Your task to perform on an android device: Show me productivity apps on the Play Store Image 0: 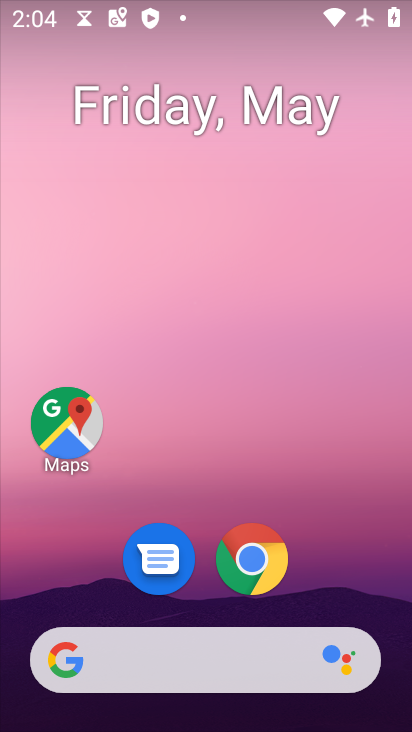
Step 0: drag from (340, 612) to (319, 184)
Your task to perform on an android device: Show me productivity apps on the Play Store Image 1: 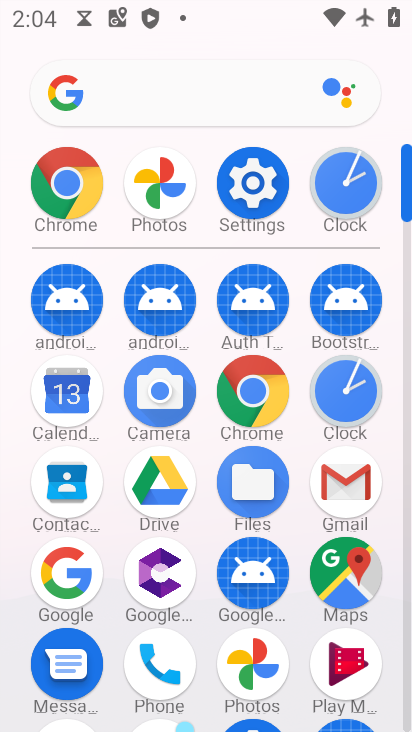
Step 1: drag from (239, 617) to (282, 223)
Your task to perform on an android device: Show me productivity apps on the Play Store Image 2: 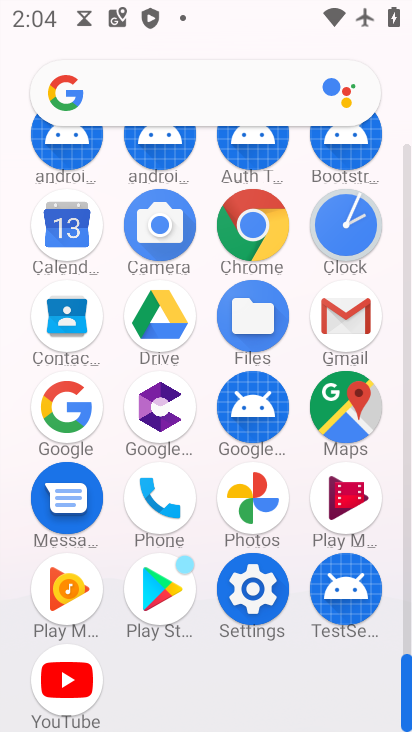
Step 2: click (165, 589)
Your task to perform on an android device: Show me productivity apps on the Play Store Image 3: 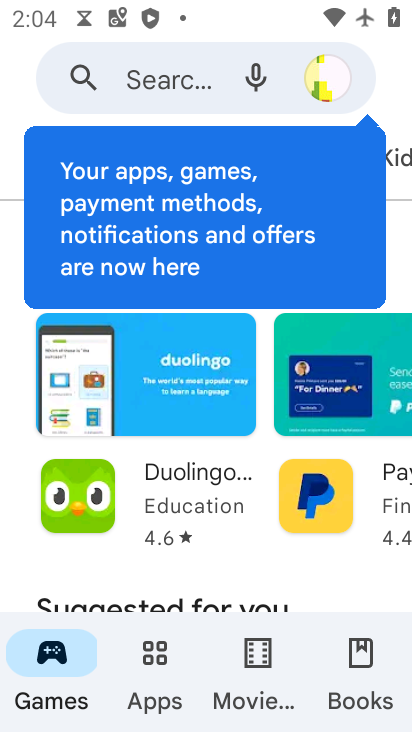
Step 3: click (159, 655)
Your task to perform on an android device: Show me productivity apps on the Play Store Image 4: 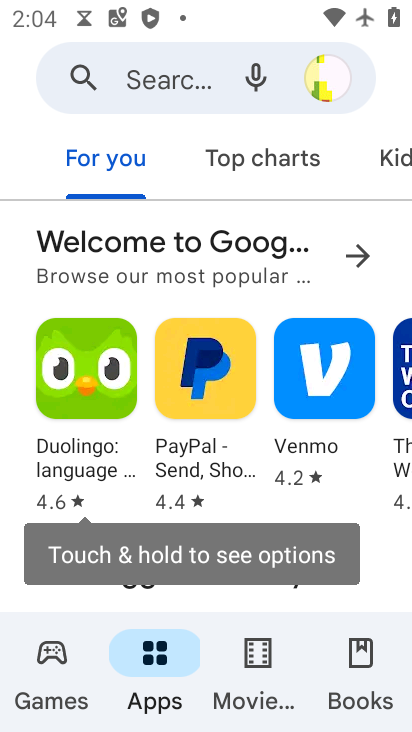
Step 4: drag from (293, 148) to (52, 156)
Your task to perform on an android device: Show me productivity apps on the Play Store Image 5: 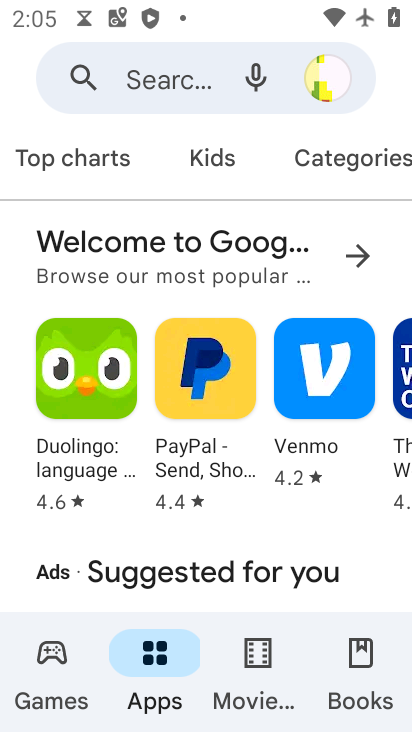
Step 5: click (352, 167)
Your task to perform on an android device: Show me productivity apps on the Play Store Image 6: 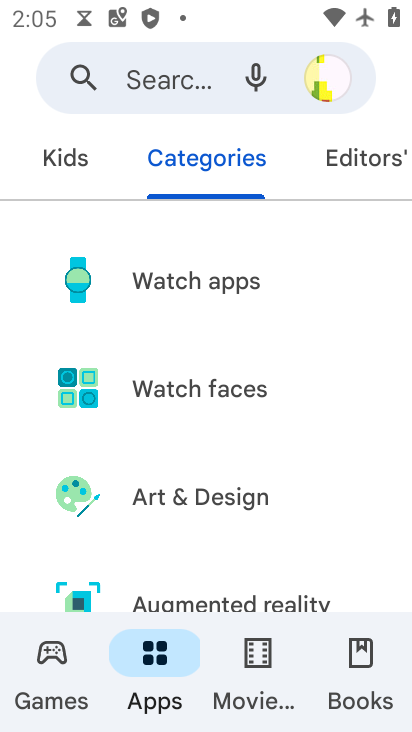
Step 6: drag from (258, 536) to (257, 232)
Your task to perform on an android device: Show me productivity apps on the Play Store Image 7: 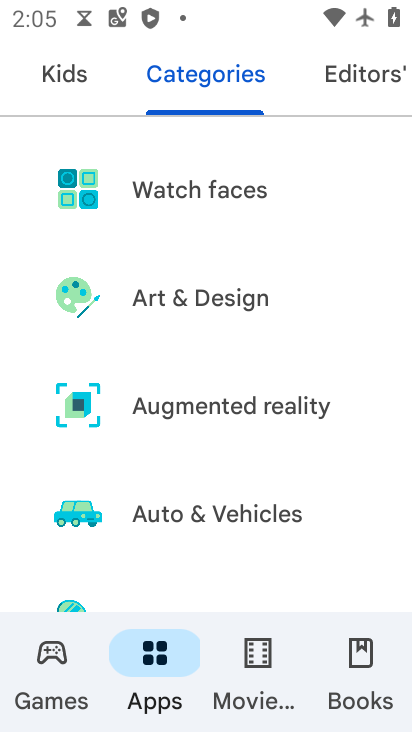
Step 7: drag from (285, 537) to (285, 232)
Your task to perform on an android device: Show me productivity apps on the Play Store Image 8: 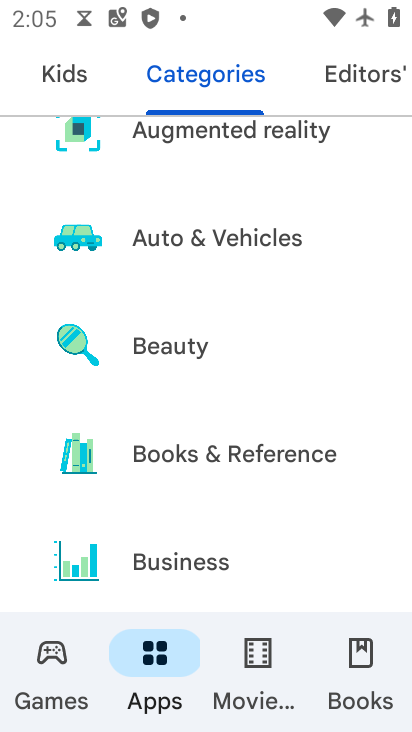
Step 8: drag from (286, 569) to (268, 190)
Your task to perform on an android device: Show me productivity apps on the Play Store Image 9: 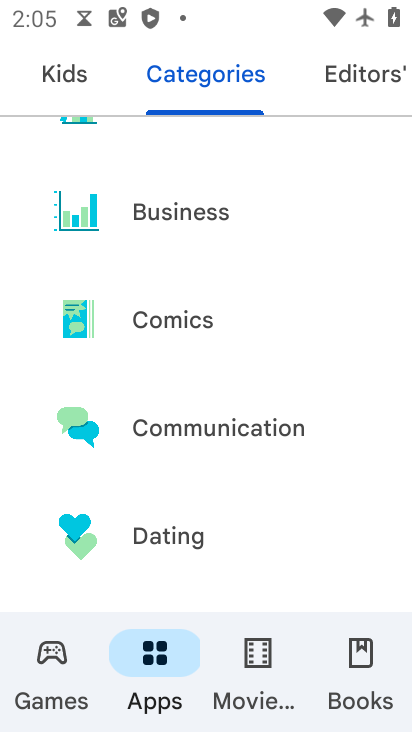
Step 9: drag from (276, 512) to (267, 212)
Your task to perform on an android device: Show me productivity apps on the Play Store Image 10: 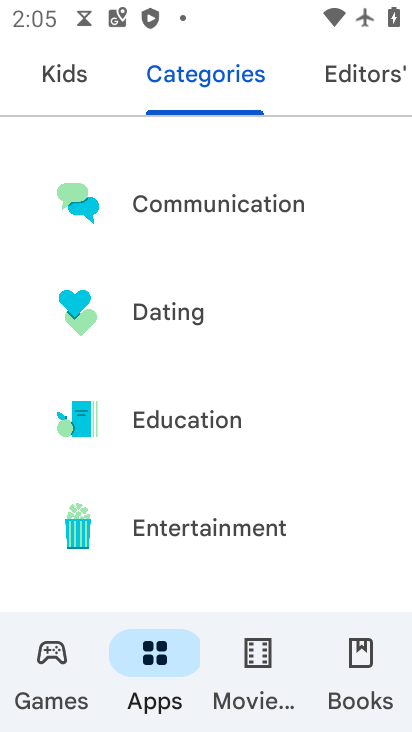
Step 10: drag from (269, 559) to (284, 156)
Your task to perform on an android device: Show me productivity apps on the Play Store Image 11: 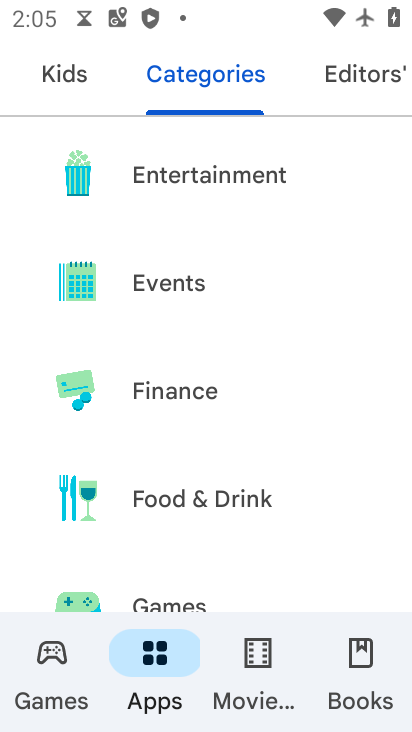
Step 11: drag from (272, 536) to (254, 157)
Your task to perform on an android device: Show me productivity apps on the Play Store Image 12: 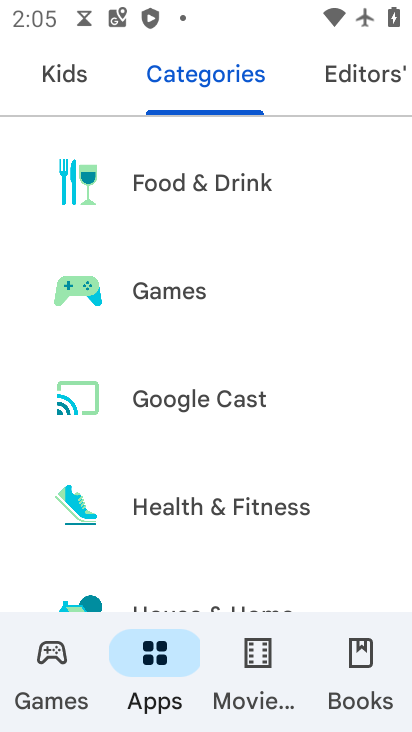
Step 12: drag from (233, 307) to (243, 194)
Your task to perform on an android device: Show me productivity apps on the Play Store Image 13: 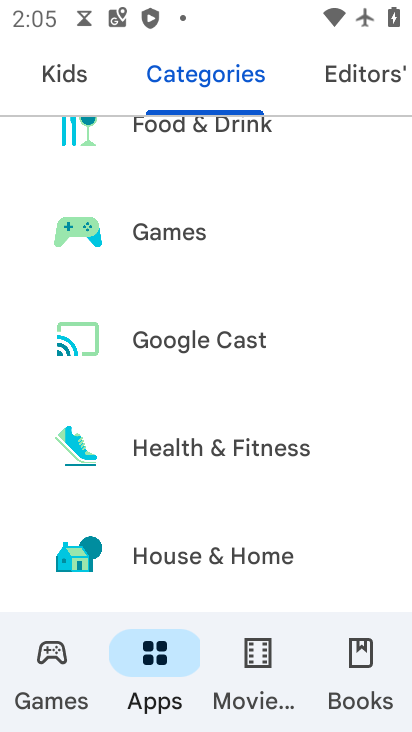
Step 13: drag from (275, 571) to (277, 269)
Your task to perform on an android device: Show me productivity apps on the Play Store Image 14: 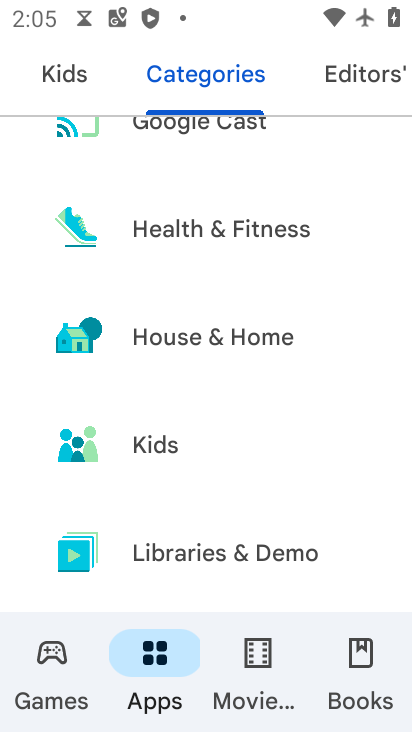
Step 14: drag from (289, 555) to (260, 274)
Your task to perform on an android device: Show me productivity apps on the Play Store Image 15: 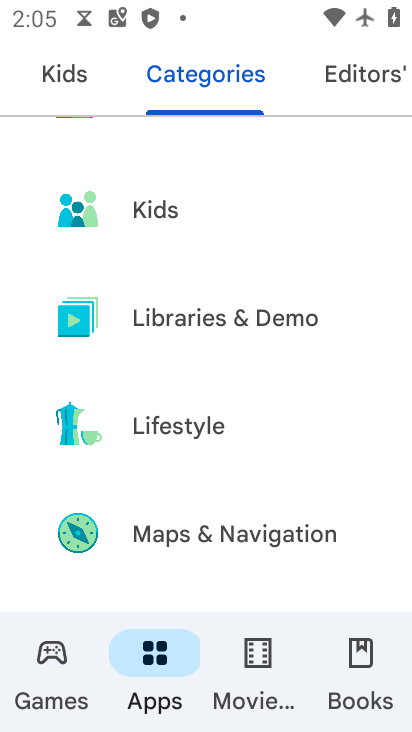
Step 15: drag from (306, 555) to (308, 267)
Your task to perform on an android device: Show me productivity apps on the Play Store Image 16: 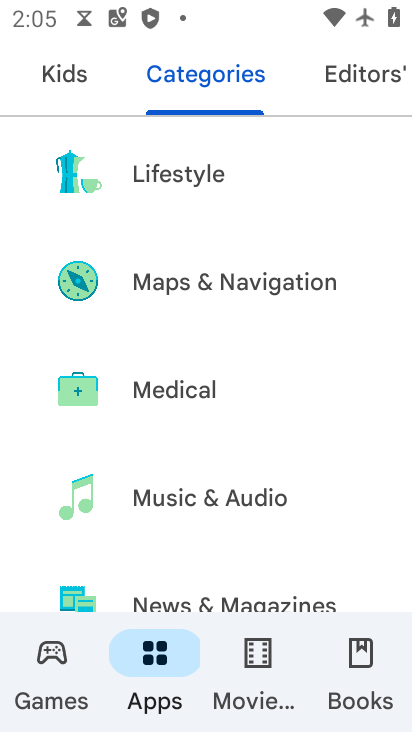
Step 16: drag from (292, 553) to (290, 221)
Your task to perform on an android device: Show me productivity apps on the Play Store Image 17: 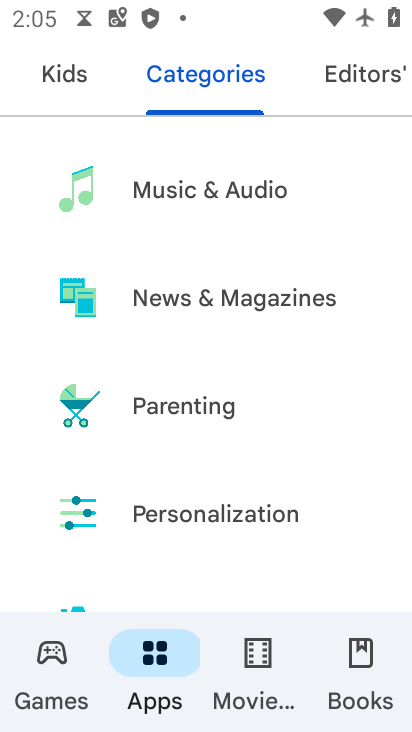
Step 17: drag from (296, 555) to (291, 214)
Your task to perform on an android device: Show me productivity apps on the Play Store Image 18: 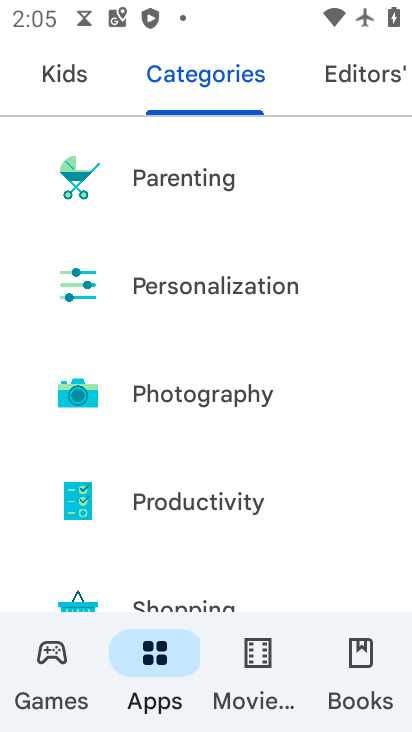
Step 18: click (256, 514)
Your task to perform on an android device: Show me productivity apps on the Play Store Image 19: 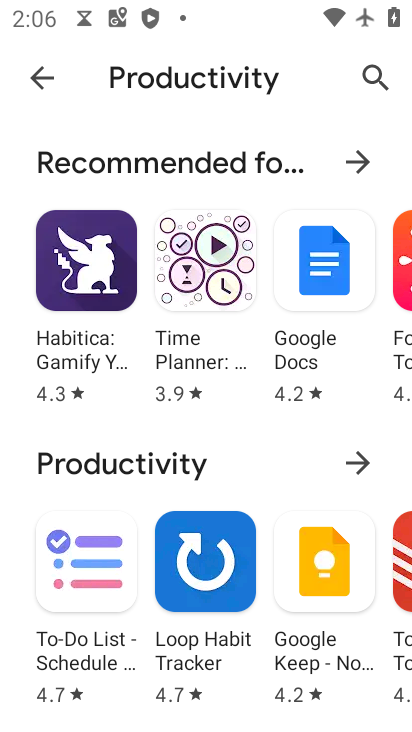
Step 19: task complete